Your task to perform on an android device: turn off airplane mode Image 0: 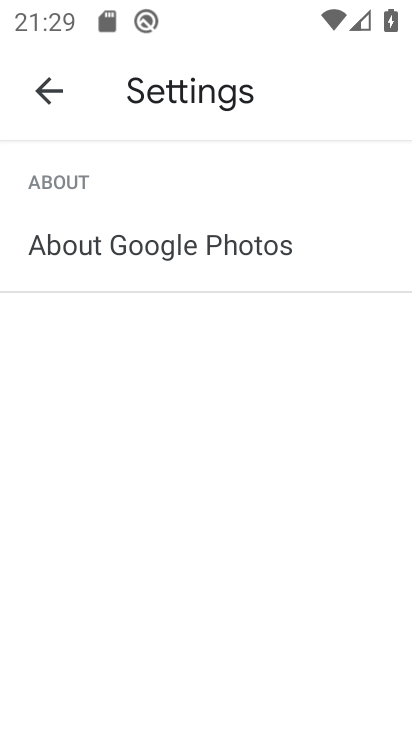
Step 0: press home button
Your task to perform on an android device: turn off airplane mode Image 1: 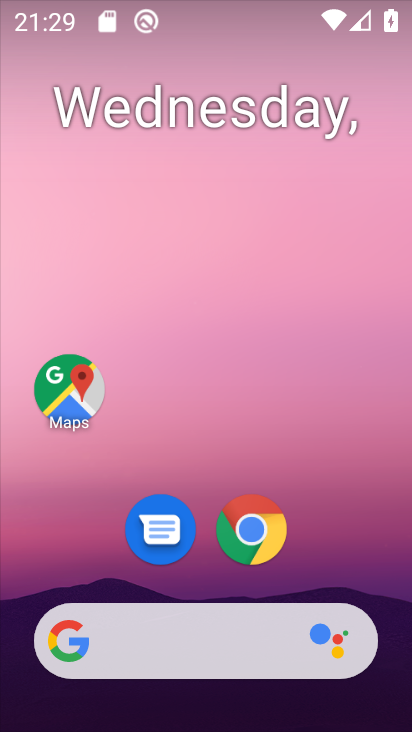
Step 1: drag from (81, 574) to (217, 67)
Your task to perform on an android device: turn off airplane mode Image 2: 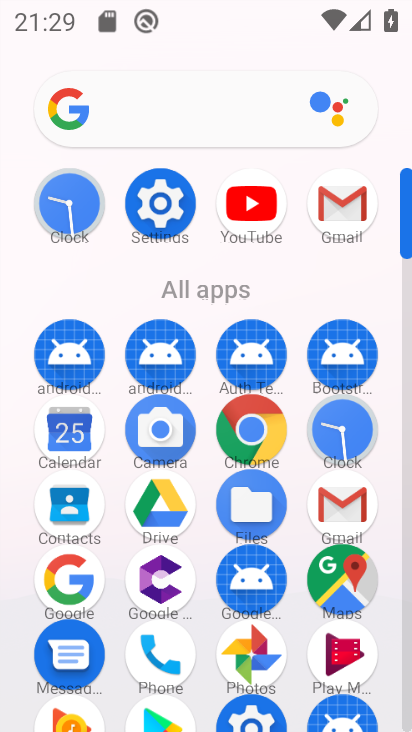
Step 2: drag from (209, 631) to (268, 446)
Your task to perform on an android device: turn off airplane mode Image 3: 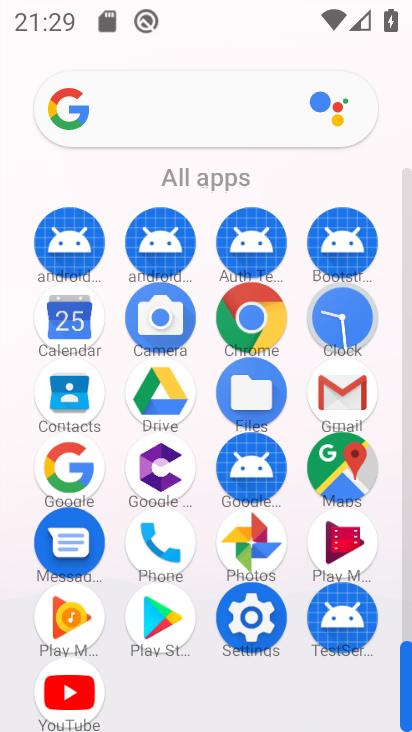
Step 3: click (250, 626)
Your task to perform on an android device: turn off airplane mode Image 4: 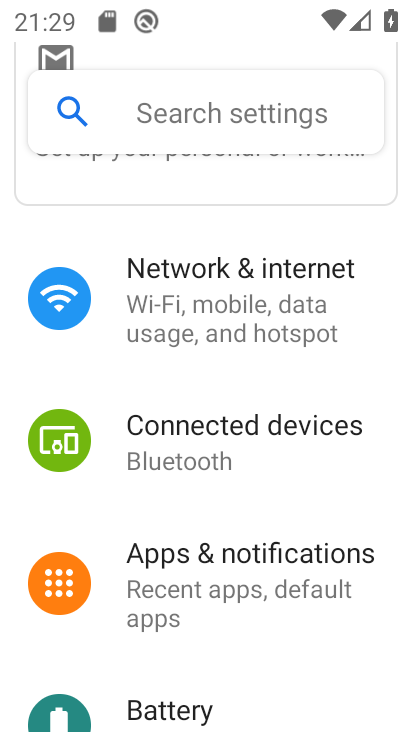
Step 4: click (288, 337)
Your task to perform on an android device: turn off airplane mode Image 5: 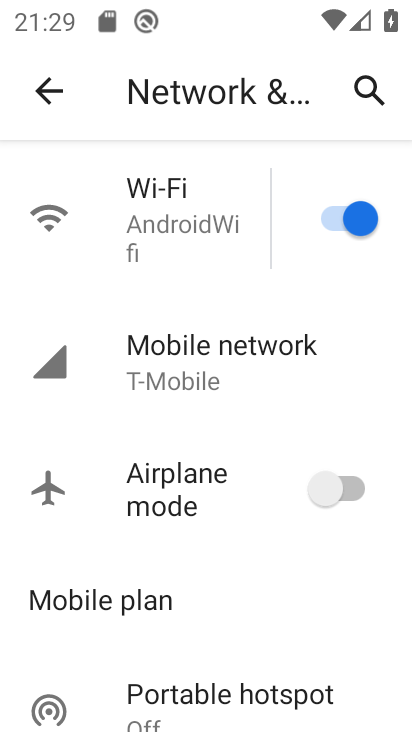
Step 5: task complete